Your task to perform on an android device: Open Google Chrome Image 0: 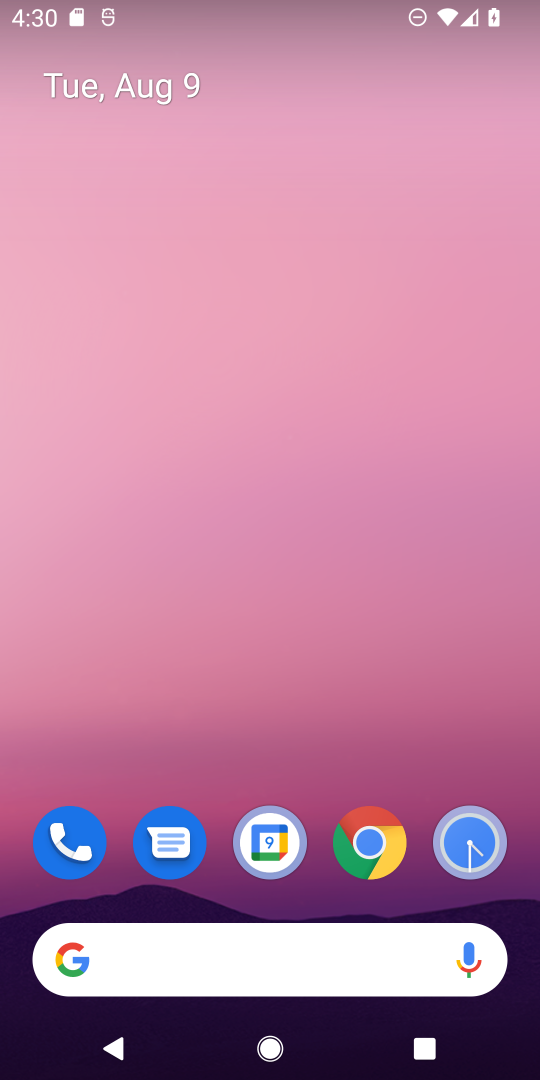
Step 0: drag from (374, 947) to (366, 156)
Your task to perform on an android device: Open Google Chrome Image 1: 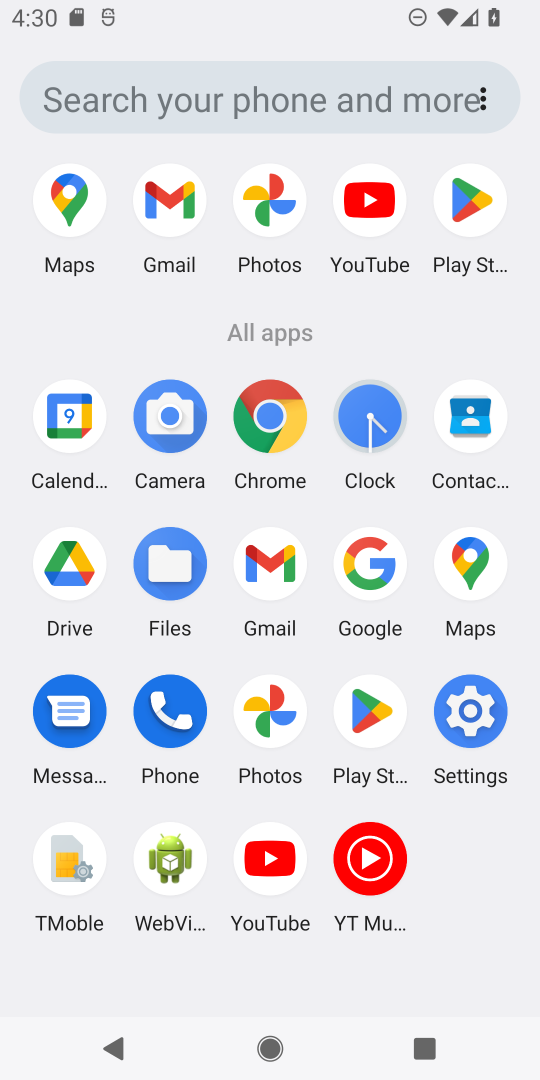
Step 1: click (280, 425)
Your task to perform on an android device: Open Google Chrome Image 2: 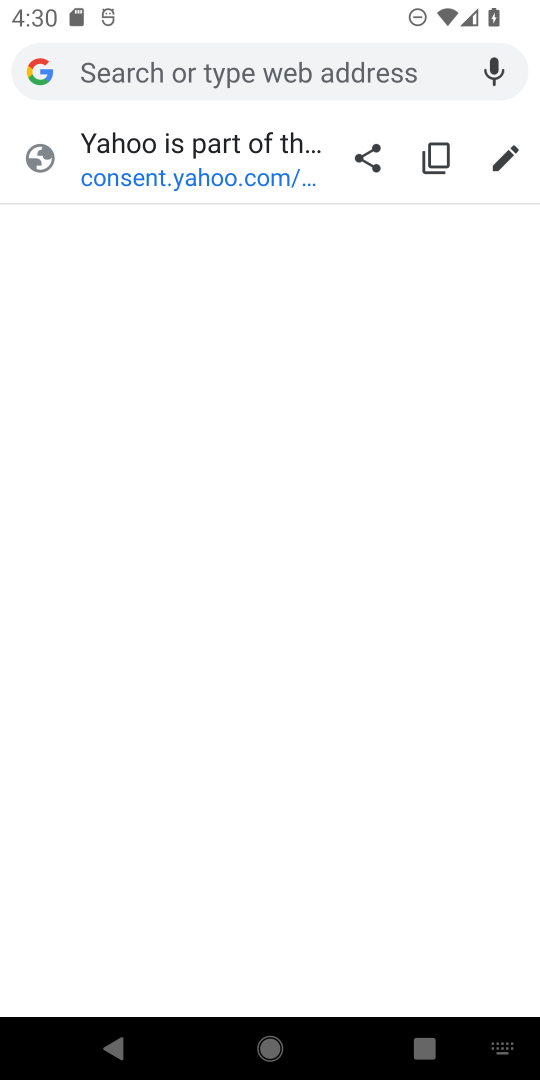
Step 2: task complete